Your task to perform on an android device: Go to settings Image 0: 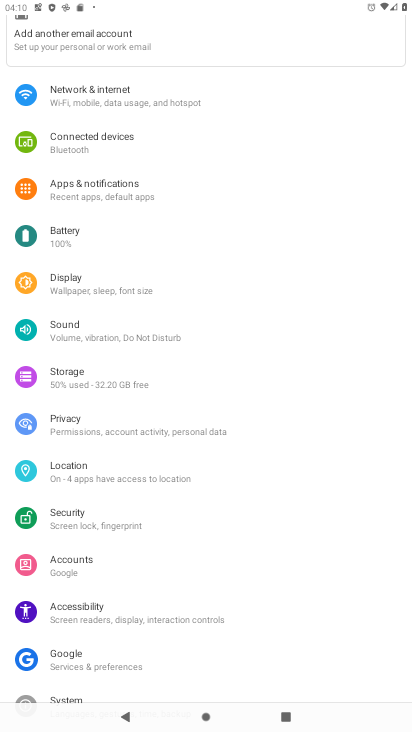
Step 0: drag from (275, 225) to (276, 448)
Your task to perform on an android device: Go to settings Image 1: 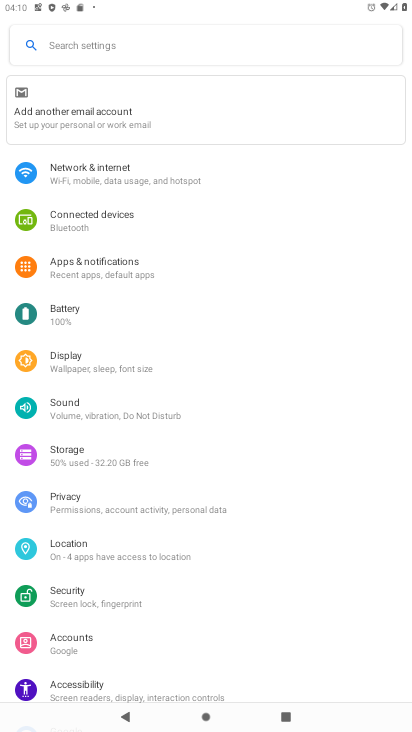
Step 1: task complete